Your task to perform on an android device: add a contact Image 0: 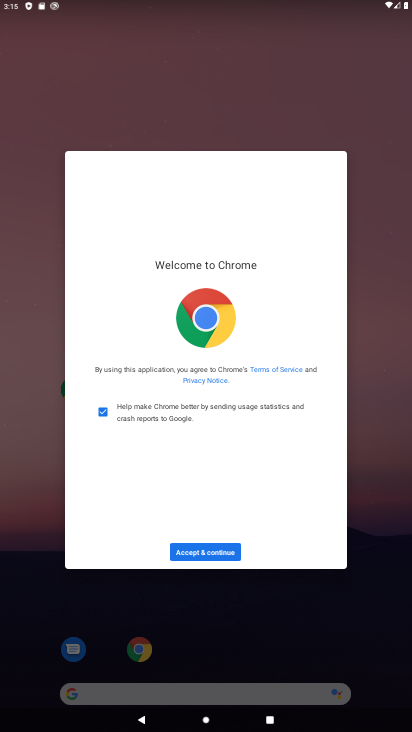
Step 0: click (183, 556)
Your task to perform on an android device: add a contact Image 1: 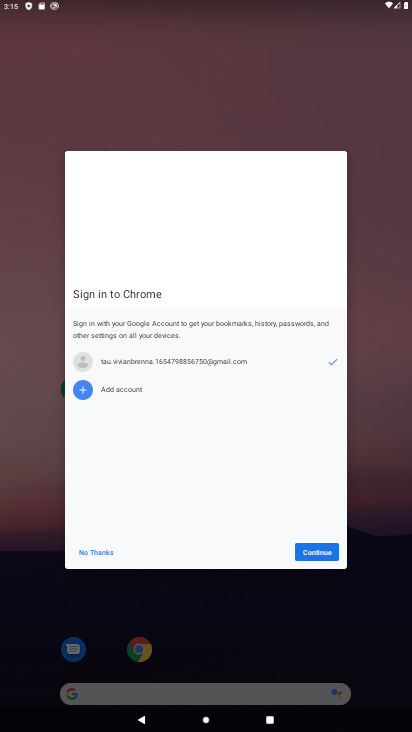
Step 1: click (328, 560)
Your task to perform on an android device: add a contact Image 2: 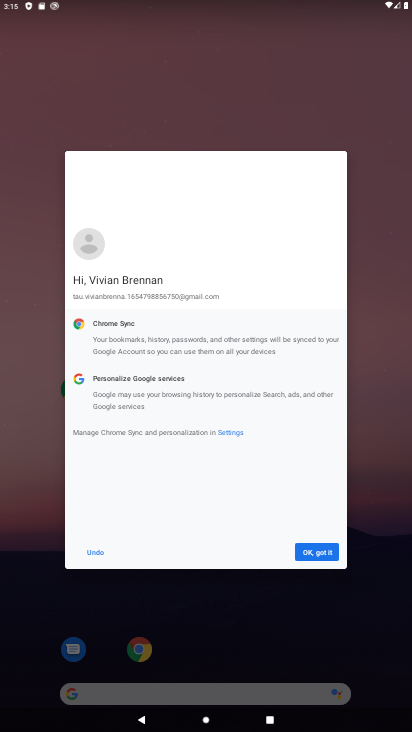
Step 2: click (316, 548)
Your task to perform on an android device: add a contact Image 3: 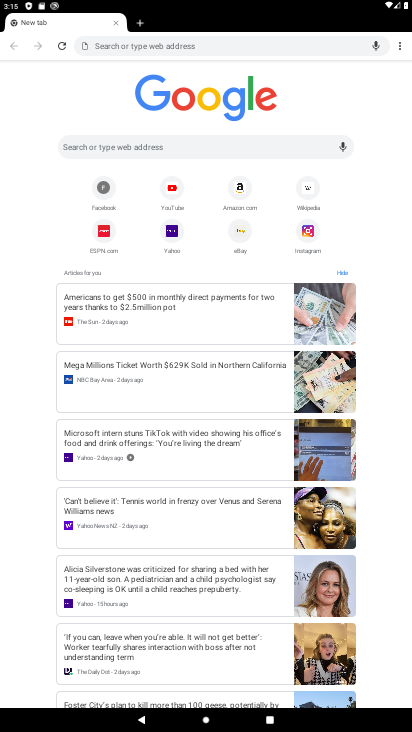
Step 3: click (402, 45)
Your task to perform on an android device: add a contact Image 4: 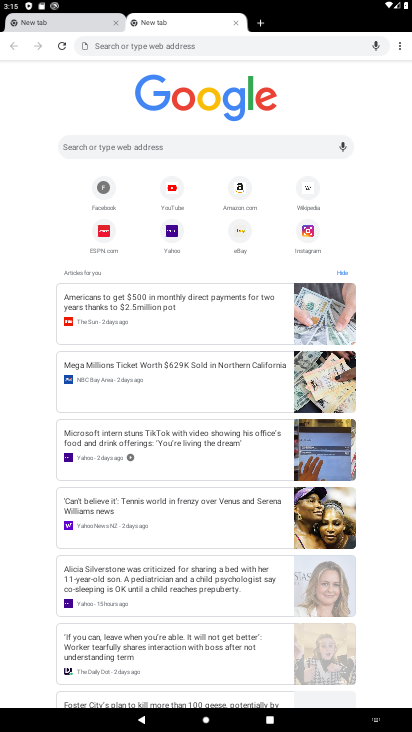
Step 4: click (399, 49)
Your task to perform on an android device: add a contact Image 5: 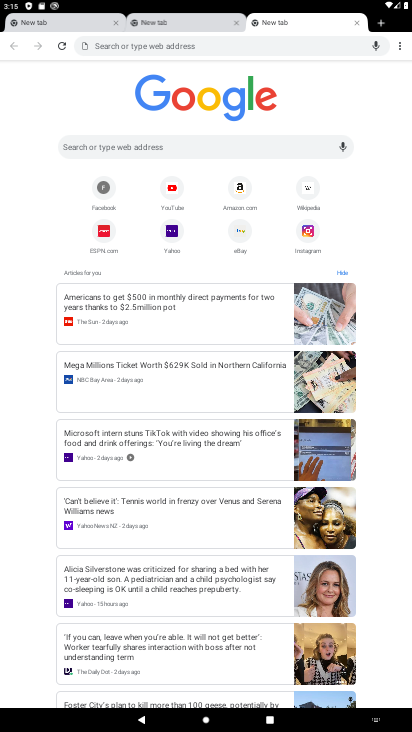
Step 5: task complete